Your task to perform on an android device: toggle notification dots Image 0: 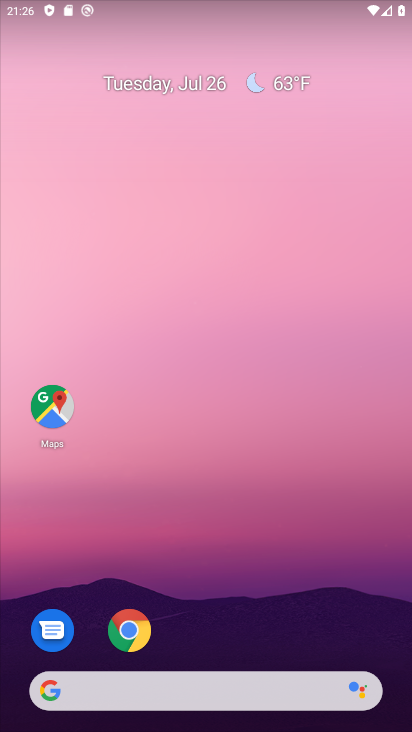
Step 0: drag from (298, 597) to (285, 94)
Your task to perform on an android device: toggle notification dots Image 1: 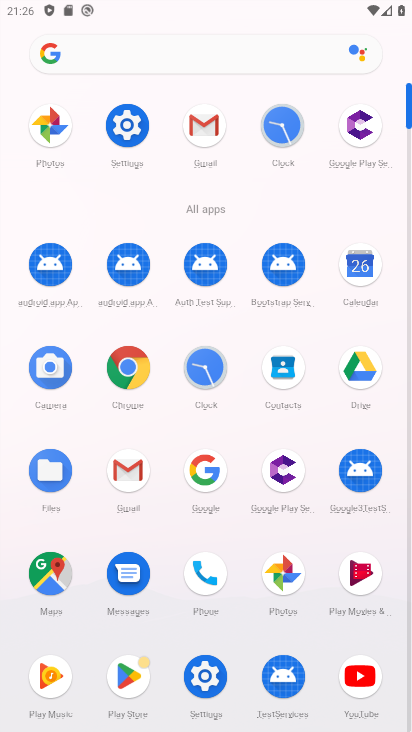
Step 1: click (123, 121)
Your task to perform on an android device: toggle notification dots Image 2: 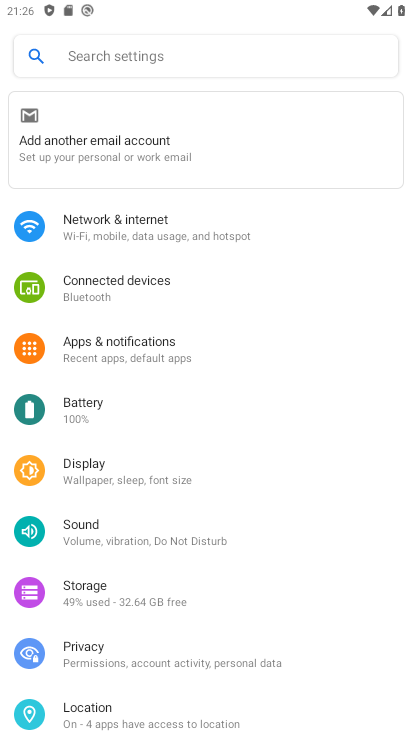
Step 2: click (172, 340)
Your task to perform on an android device: toggle notification dots Image 3: 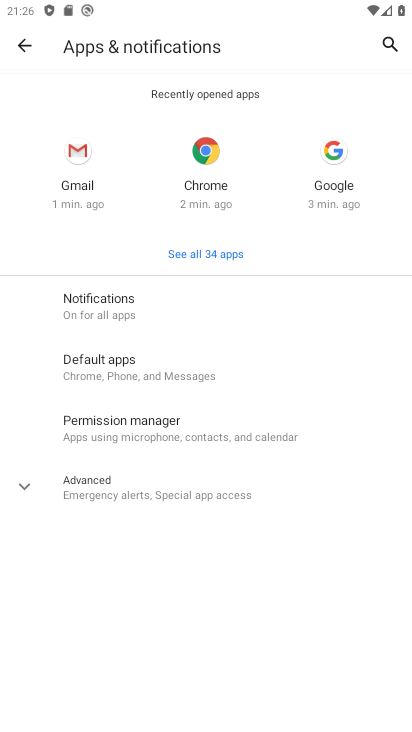
Step 3: click (123, 314)
Your task to perform on an android device: toggle notification dots Image 4: 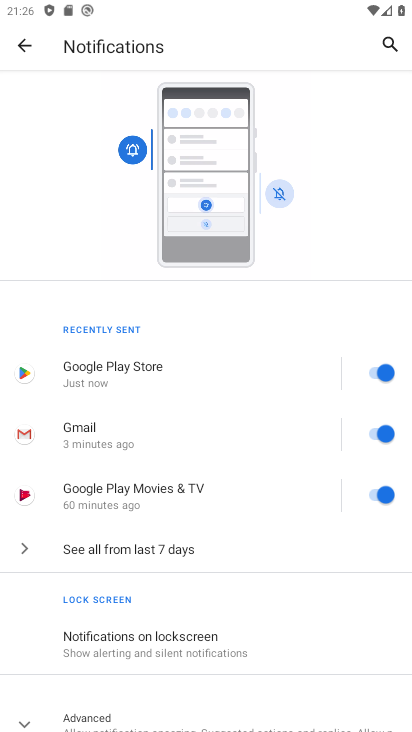
Step 4: drag from (180, 588) to (153, 55)
Your task to perform on an android device: toggle notification dots Image 5: 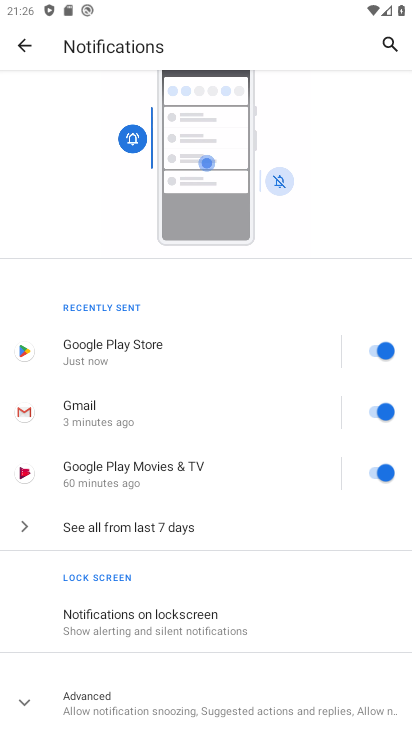
Step 5: click (207, 713)
Your task to perform on an android device: toggle notification dots Image 6: 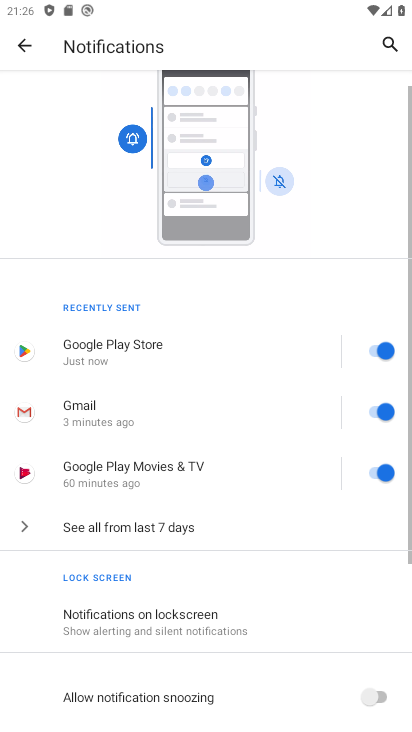
Step 6: drag from (207, 713) to (160, 344)
Your task to perform on an android device: toggle notification dots Image 7: 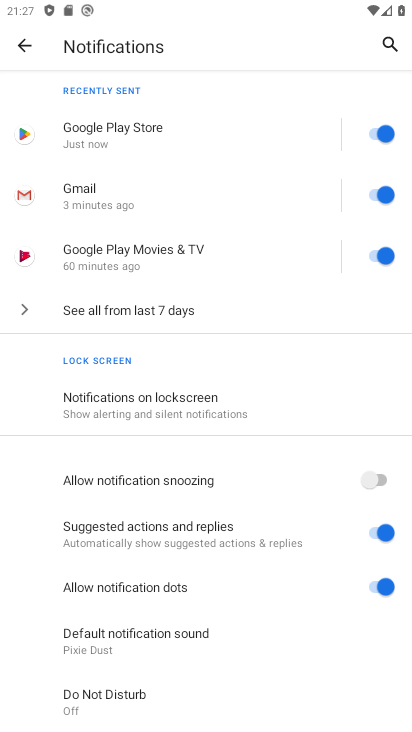
Step 7: click (368, 585)
Your task to perform on an android device: toggle notification dots Image 8: 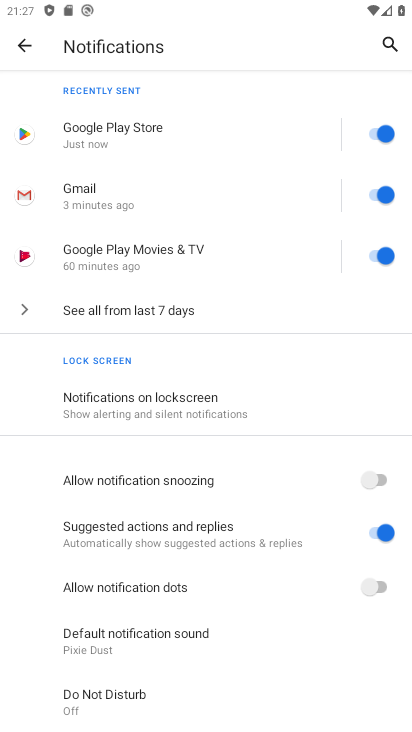
Step 8: task complete